Your task to perform on an android device: Open the calendar and show me this week's events? Image 0: 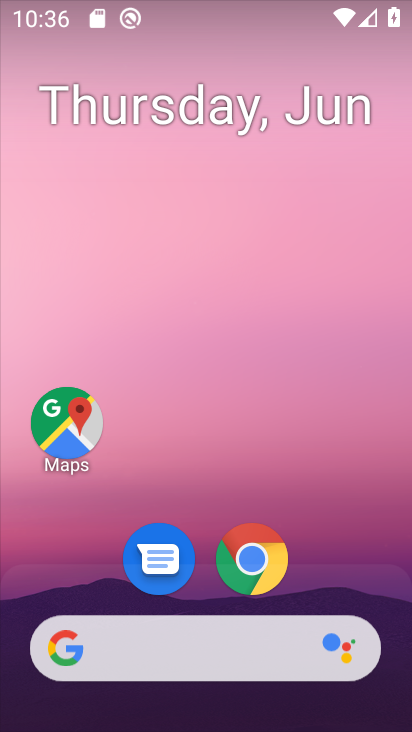
Step 0: drag from (270, 625) to (301, 52)
Your task to perform on an android device: Open the calendar and show me this week's events? Image 1: 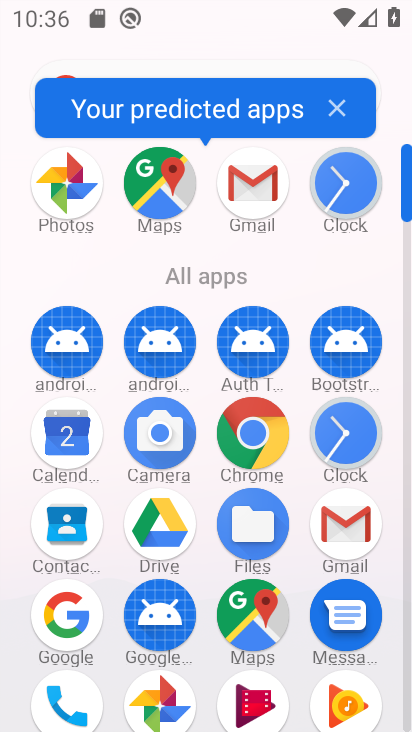
Step 1: click (57, 449)
Your task to perform on an android device: Open the calendar and show me this week's events? Image 2: 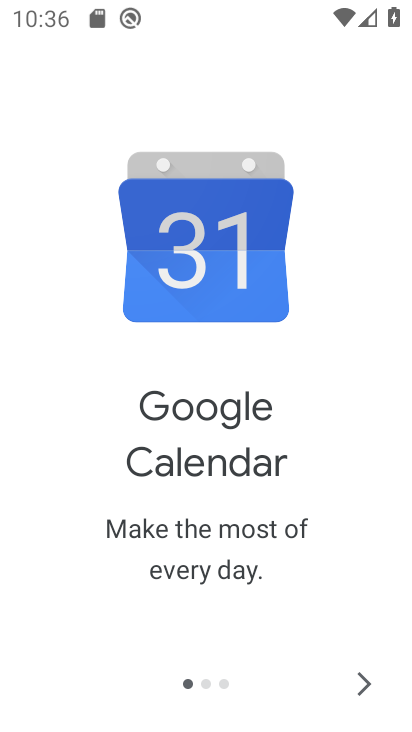
Step 2: click (365, 680)
Your task to perform on an android device: Open the calendar and show me this week's events? Image 3: 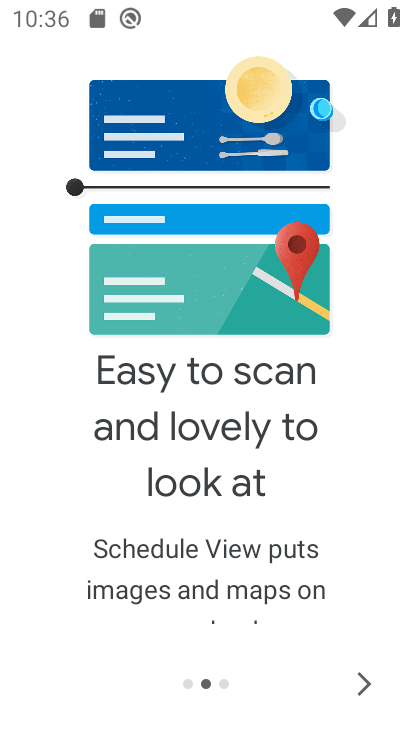
Step 3: click (365, 680)
Your task to perform on an android device: Open the calendar and show me this week's events? Image 4: 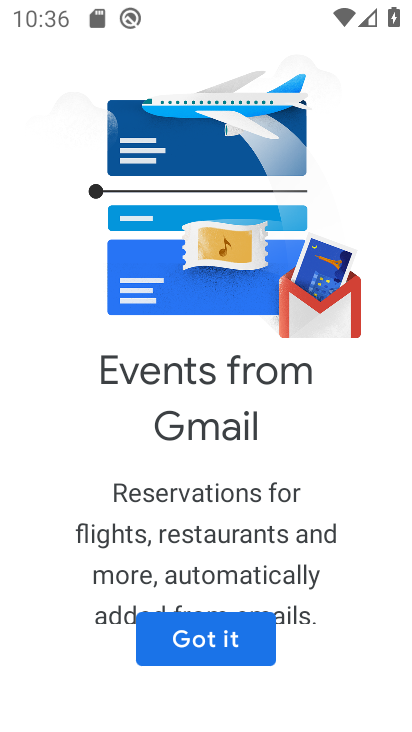
Step 4: click (197, 642)
Your task to perform on an android device: Open the calendar and show me this week's events? Image 5: 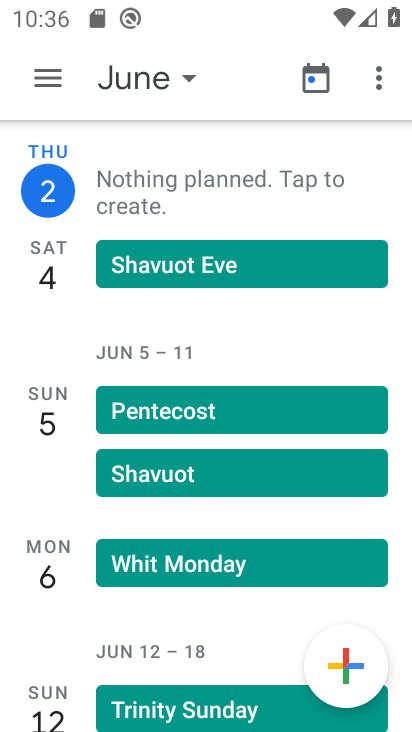
Step 5: task complete